Your task to perform on an android device: Do I have any events this weekend? Image 0: 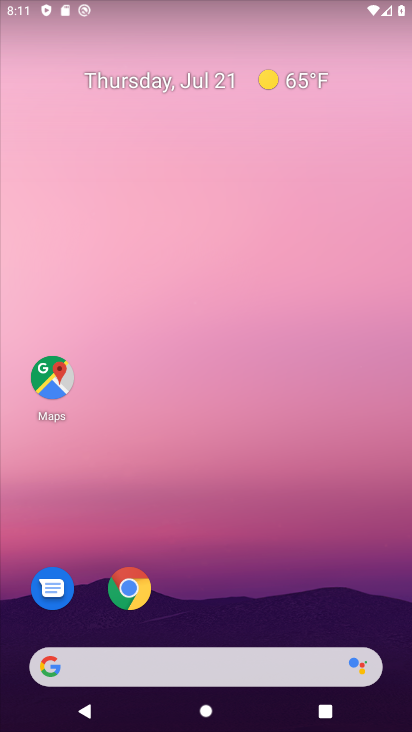
Step 0: drag from (233, 616) to (186, 120)
Your task to perform on an android device: Do I have any events this weekend? Image 1: 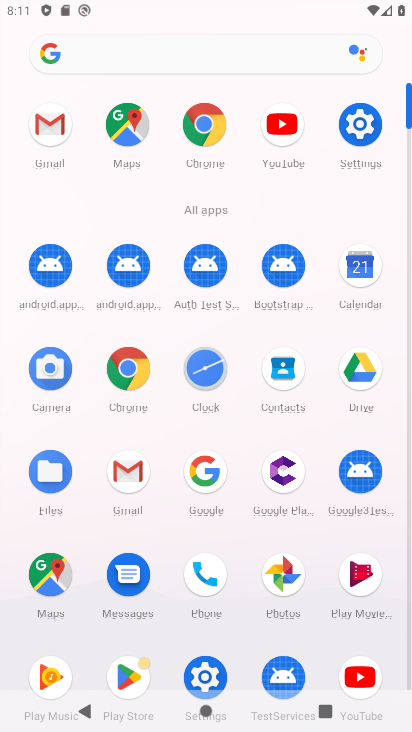
Step 1: click (358, 277)
Your task to perform on an android device: Do I have any events this weekend? Image 2: 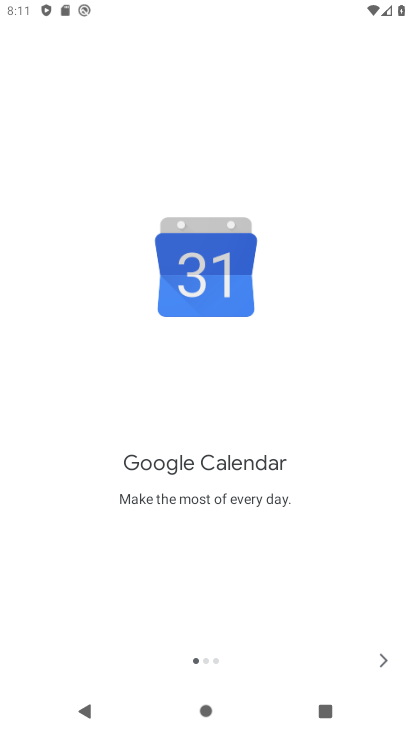
Step 2: click (374, 663)
Your task to perform on an android device: Do I have any events this weekend? Image 3: 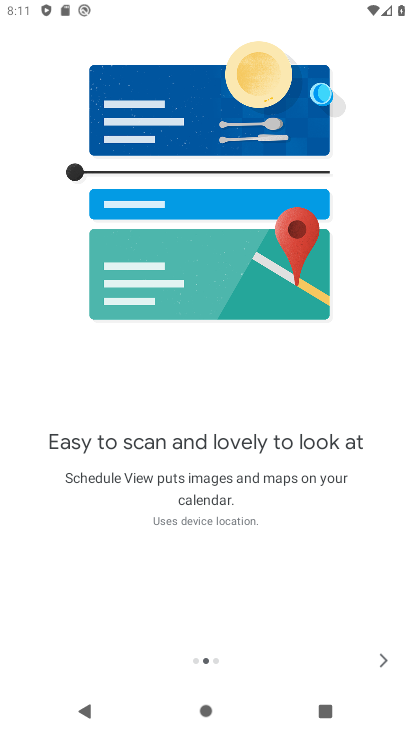
Step 3: click (375, 660)
Your task to perform on an android device: Do I have any events this weekend? Image 4: 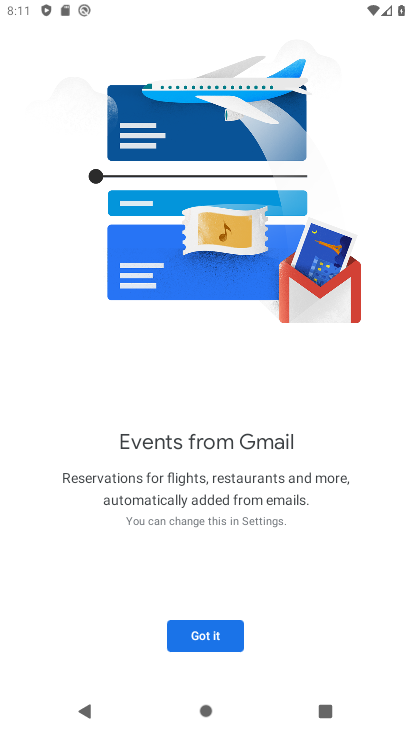
Step 4: click (199, 634)
Your task to perform on an android device: Do I have any events this weekend? Image 5: 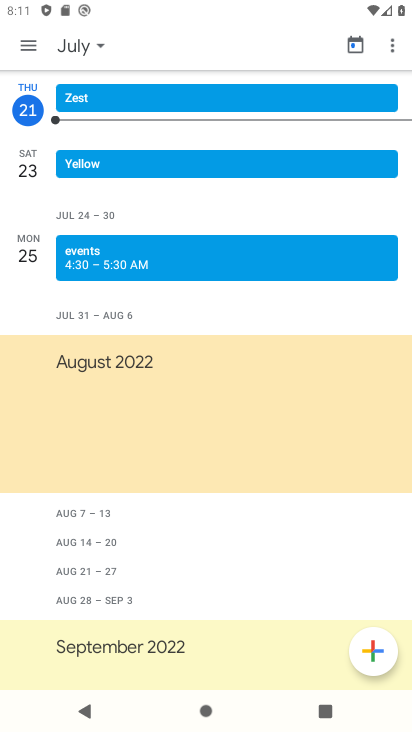
Step 5: click (28, 38)
Your task to perform on an android device: Do I have any events this weekend? Image 6: 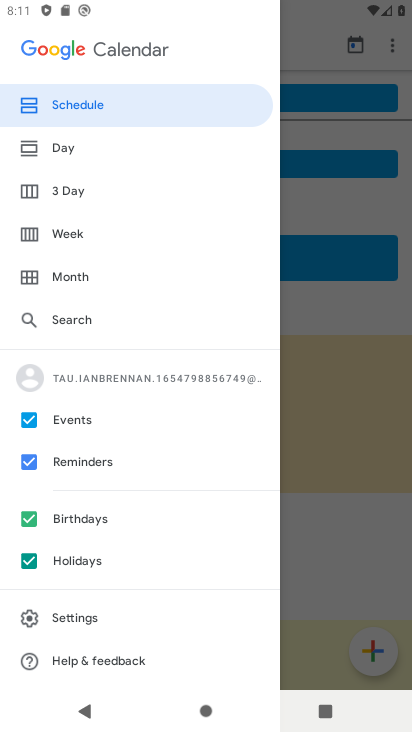
Step 6: click (86, 238)
Your task to perform on an android device: Do I have any events this weekend? Image 7: 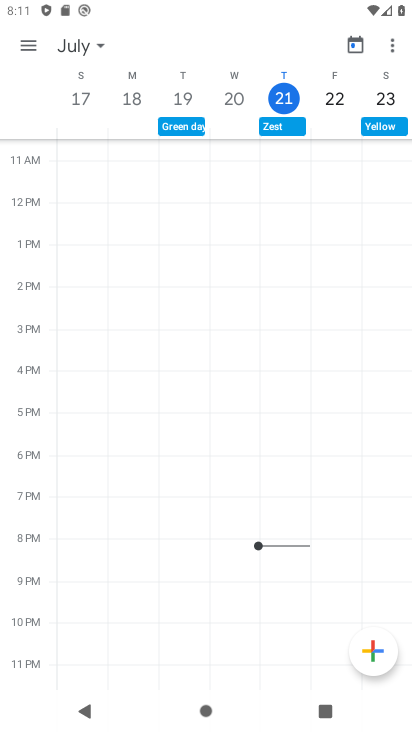
Step 7: click (388, 121)
Your task to perform on an android device: Do I have any events this weekend? Image 8: 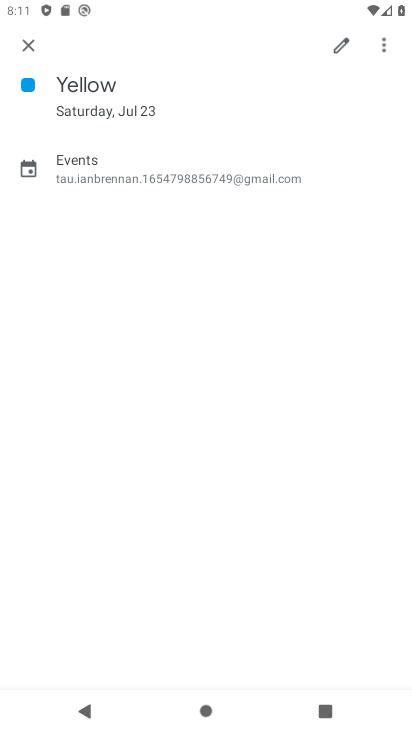
Step 8: task complete